Your task to perform on an android device: open app "The Home Depot" (install if not already installed) Image 0: 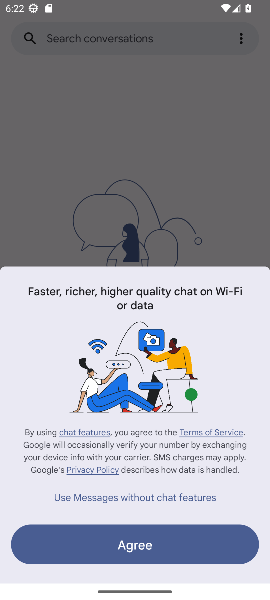
Step 0: press home button
Your task to perform on an android device: open app "The Home Depot" (install if not already installed) Image 1: 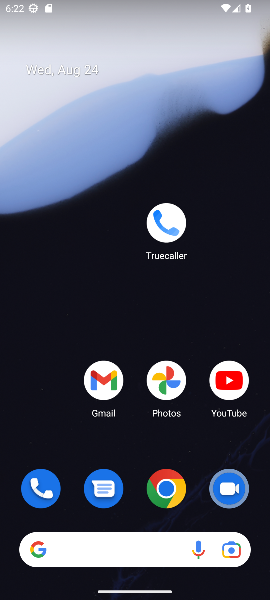
Step 1: drag from (127, 518) to (141, 92)
Your task to perform on an android device: open app "The Home Depot" (install if not already installed) Image 2: 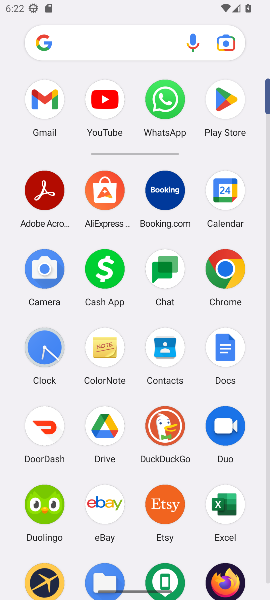
Step 2: click (218, 101)
Your task to perform on an android device: open app "The Home Depot" (install if not already installed) Image 3: 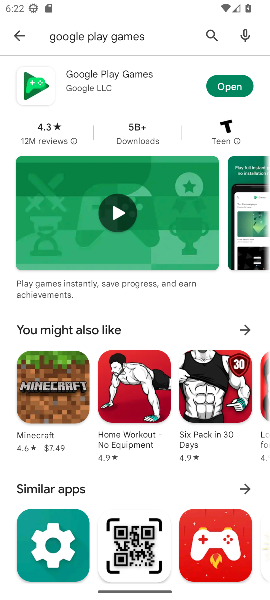
Step 3: click (201, 37)
Your task to perform on an android device: open app "The Home Depot" (install if not already installed) Image 4: 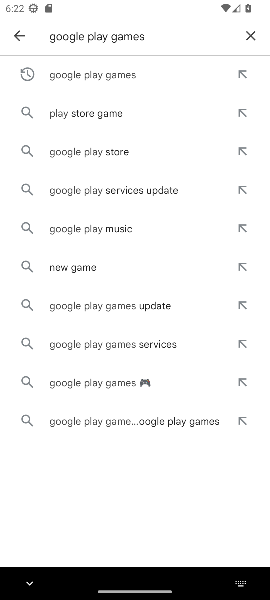
Step 4: click (258, 37)
Your task to perform on an android device: open app "The Home Depot" (install if not already installed) Image 5: 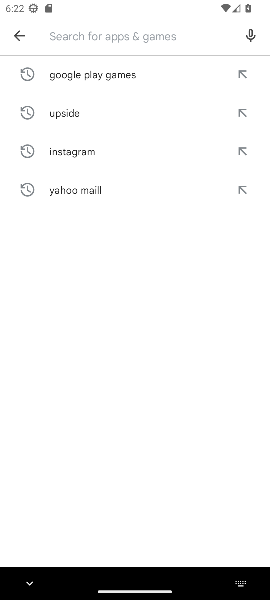
Step 5: type "the home depot"
Your task to perform on an android device: open app "The Home Depot" (install if not already installed) Image 6: 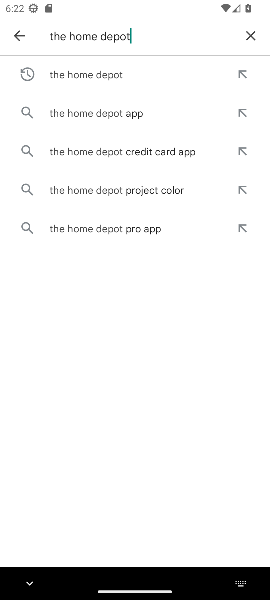
Step 6: click (80, 83)
Your task to perform on an android device: open app "The Home Depot" (install if not already installed) Image 7: 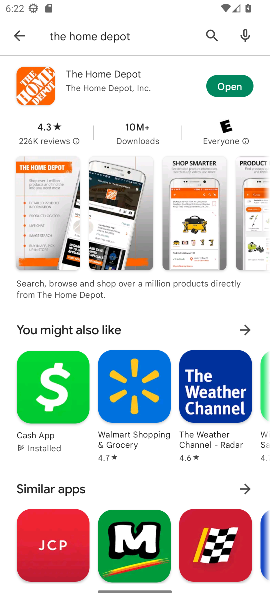
Step 7: click (230, 86)
Your task to perform on an android device: open app "The Home Depot" (install if not already installed) Image 8: 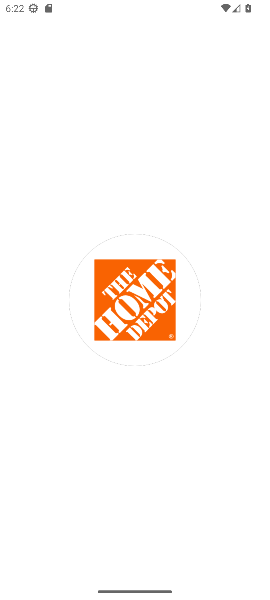
Step 8: task complete